Your task to perform on an android device: Clear the cart on ebay.com. Image 0: 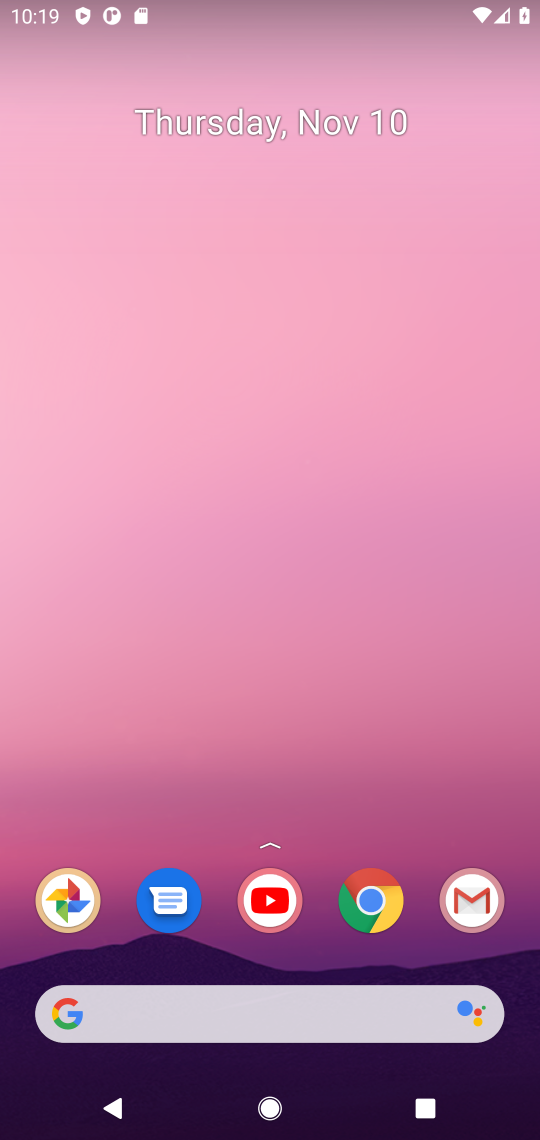
Step 0: click (376, 903)
Your task to perform on an android device: Clear the cart on ebay.com. Image 1: 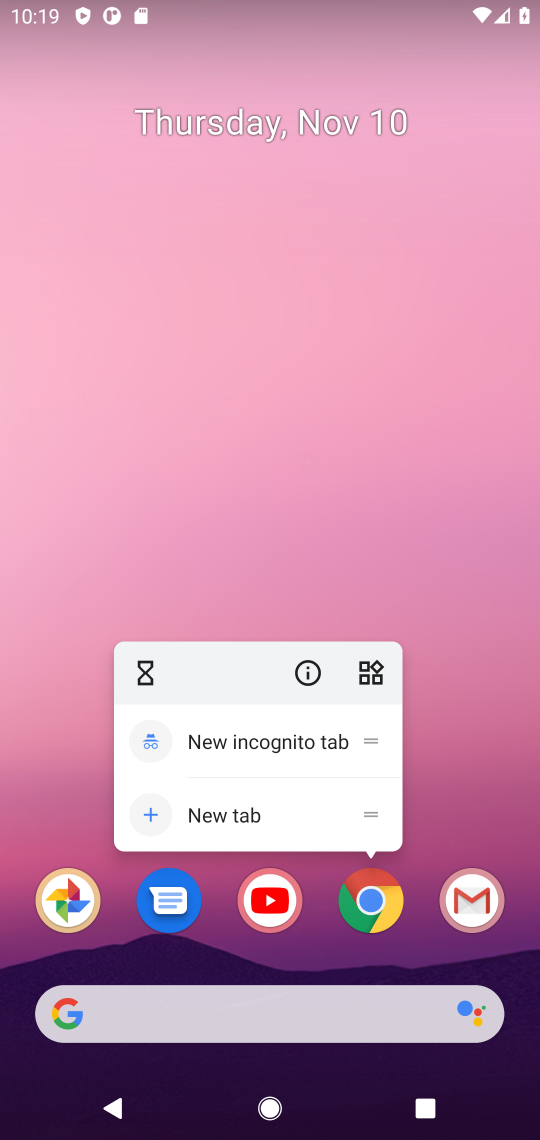
Step 1: click (376, 900)
Your task to perform on an android device: Clear the cart on ebay.com. Image 2: 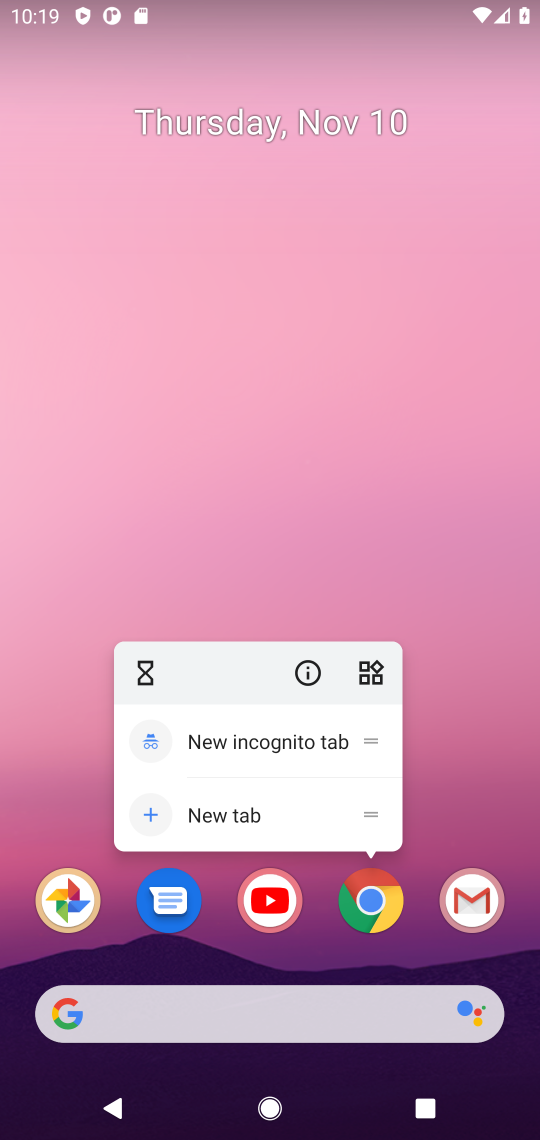
Step 2: click (376, 902)
Your task to perform on an android device: Clear the cart on ebay.com. Image 3: 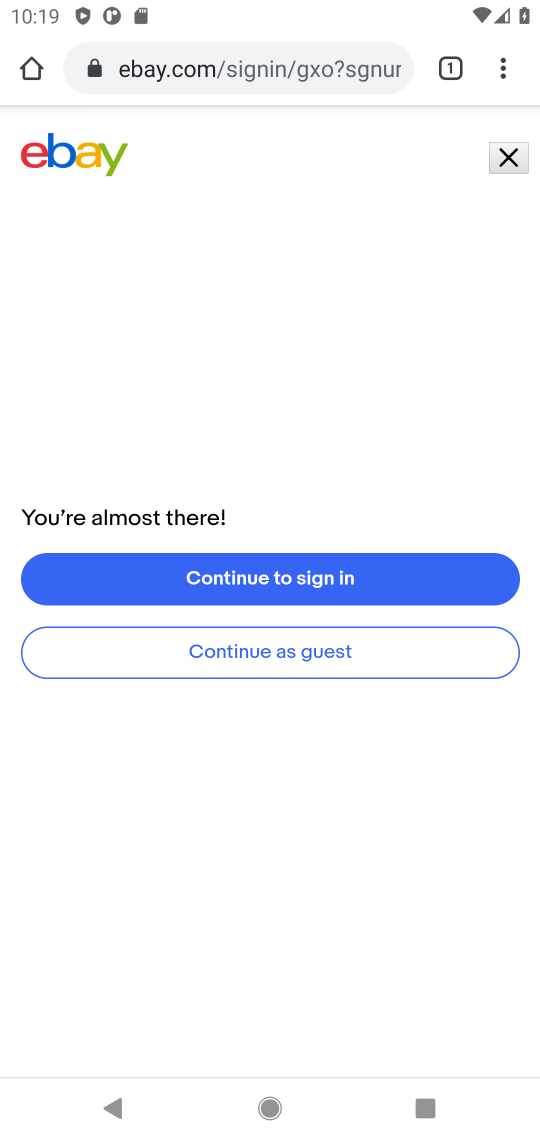
Step 3: press back button
Your task to perform on an android device: Clear the cart on ebay.com. Image 4: 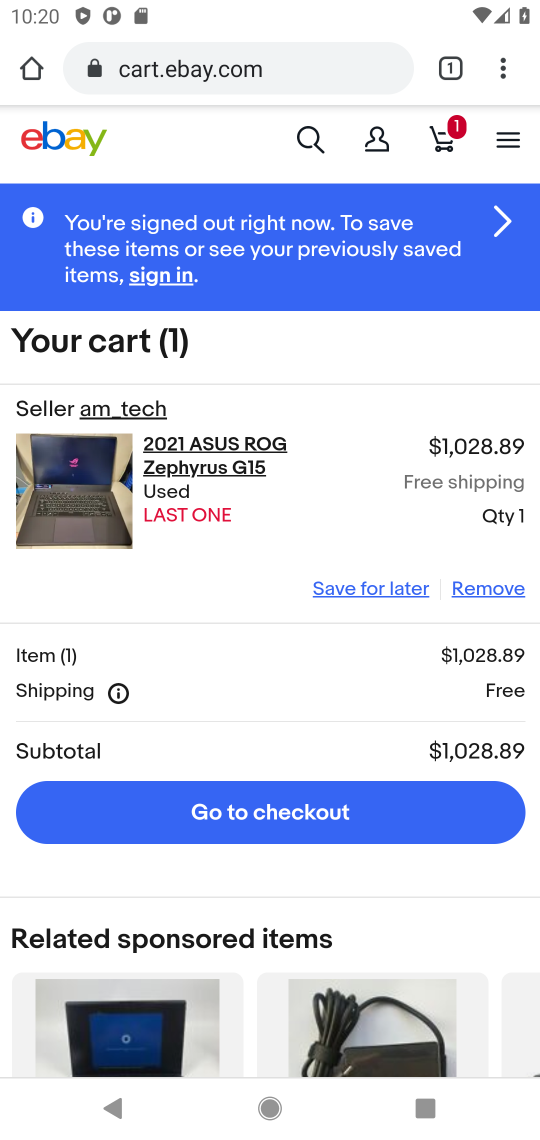
Step 4: click (458, 124)
Your task to perform on an android device: Clear the cart on ebay.com. Image 5: 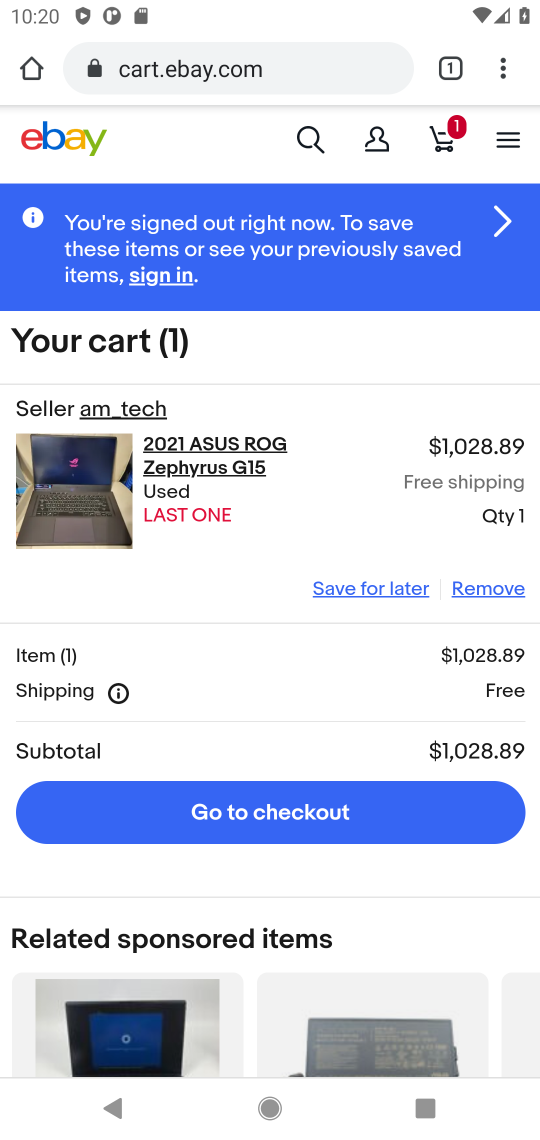
Step 5: click (494, 590)
Your task to perform on an android device: Clear the cart on ebay.com. Image 6: 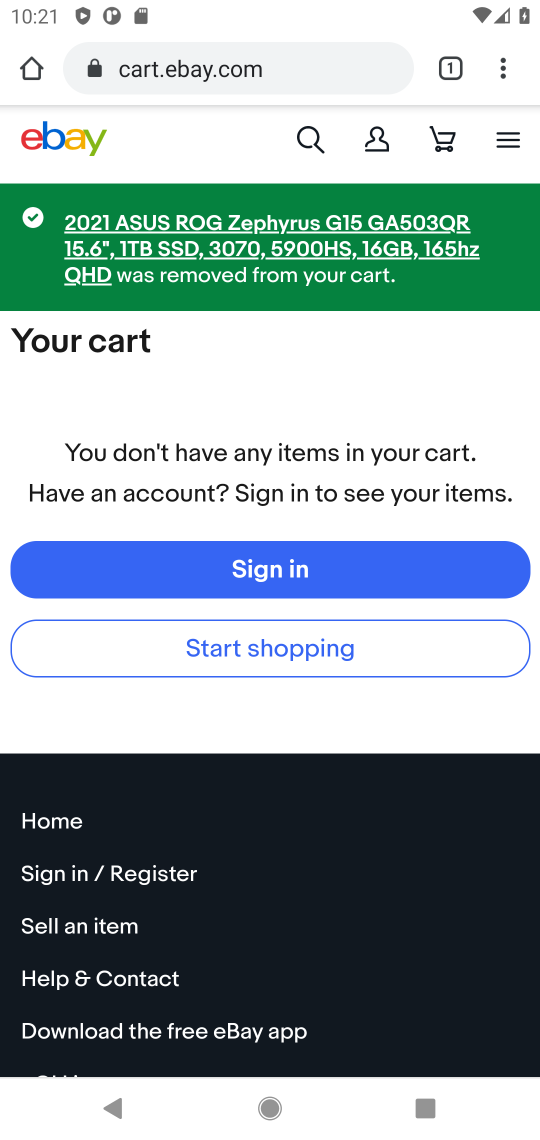
Step 6: task complete